Your task to perform on an android device: Look up the best gaming headphones on Best Buy Image 0: 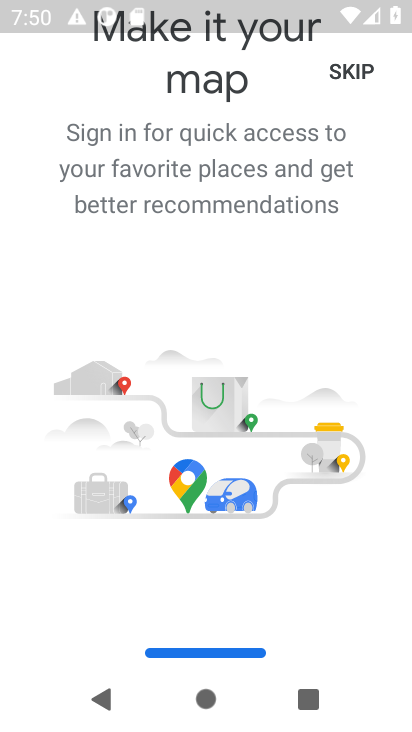
Step 0: press home button
Your task to perform on an android device: Look up the best gaming headphones on Best Buy Image 1: 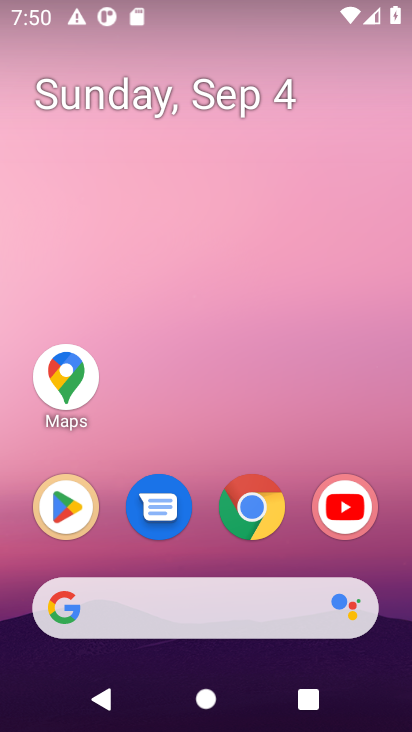
Step 1: click (254, 513)
Your task to perform on an android device: Look up the best gaming headphones on Best Buy Image 2: 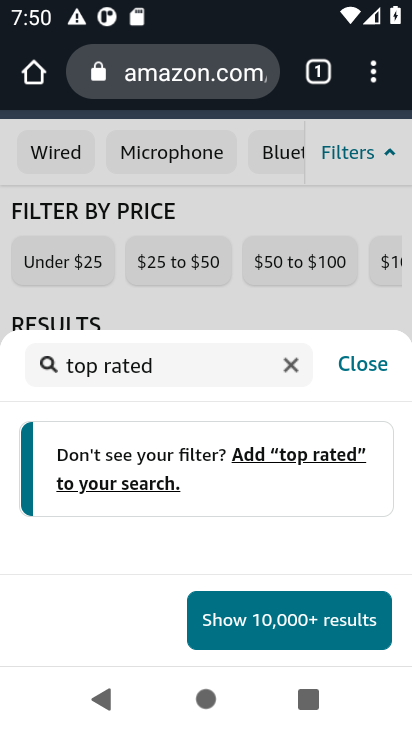
Step 2: click (26, 72)
Your task to perform on an android device: Look up the best gaming headphones on Best Buy Image 3: 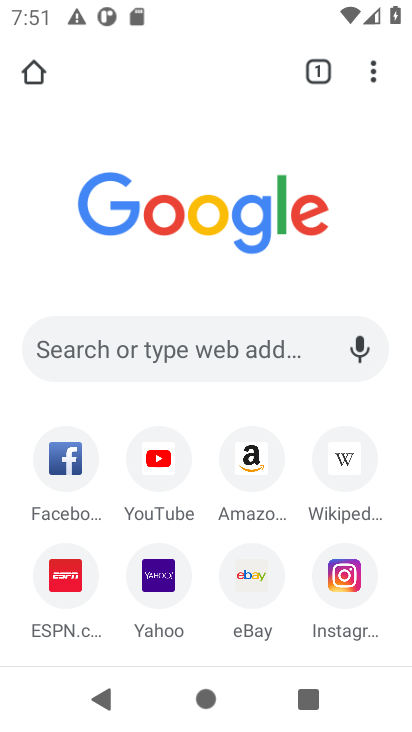
Step 3: click (161, 345)
Your task to perform on an android device: Look up the best gaming headphones on Best Buy Image 4: 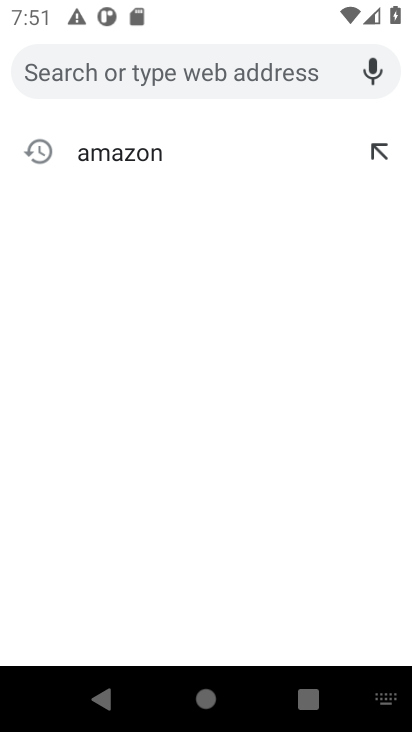
Step 4: type "Best buy"
Your task to perform on an android device: Look up the best gaming headphones on Best Buy Image 5: 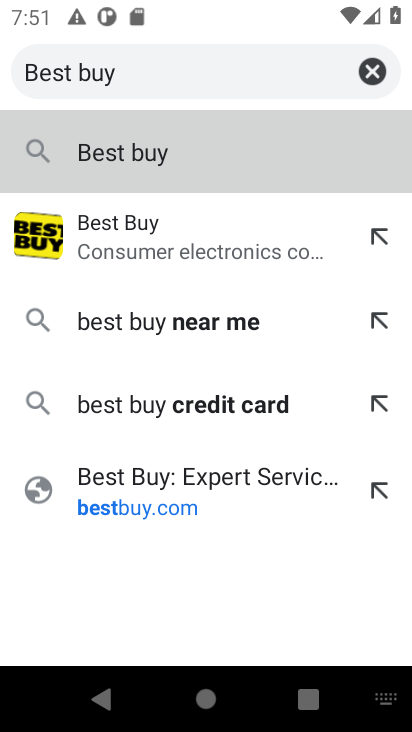
Step 5: click (121, 234)
Your task to perform on an android device: Look up the best gaming headphones on Best Buy Image 6: 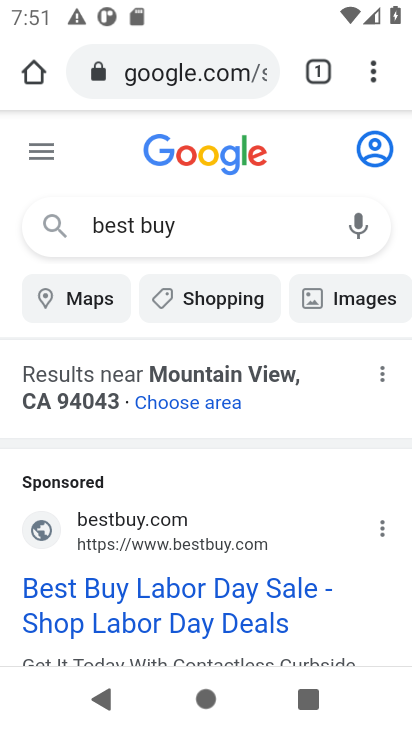
Step 6: drag from (190, 533) to (192, 246)
Your task to perform on an android device: Look up the best gaming headphones on Best Buy Image 7: 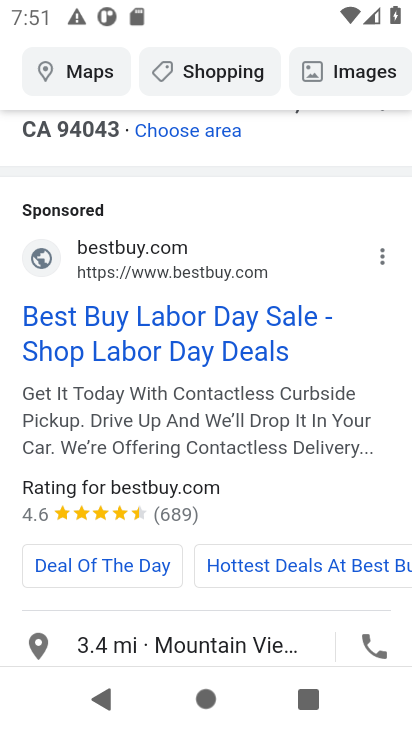
Step 7: click (103, 330)
Your task to perform on an android device: Look up the best gaming headphones on Best Buy Image 8: 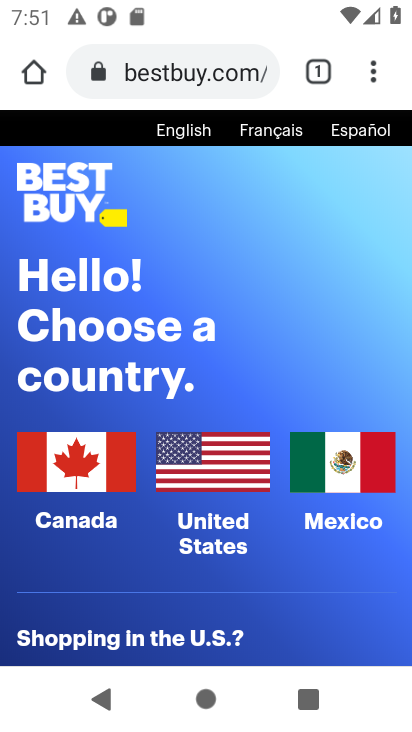
Step 8: drag from (272, 544) to (259, 271)
Your task to perform on an android device: Look up the best gaming headphones on Best Buy Image 9: 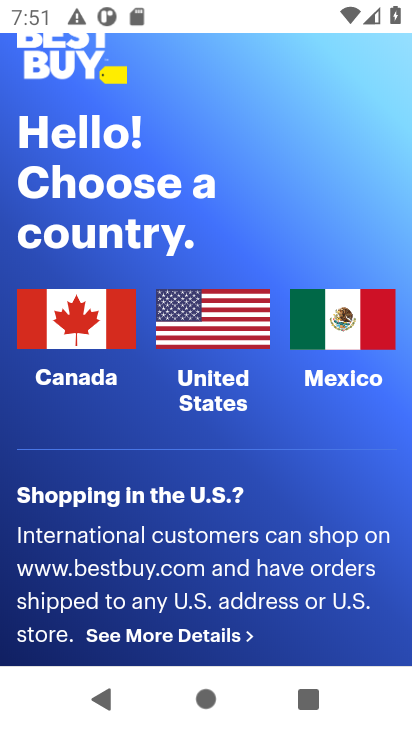
Step 9: click (215, 334)
Your task to perform on an android device: Look up the best gaming headphones on Best Buy Image 10: 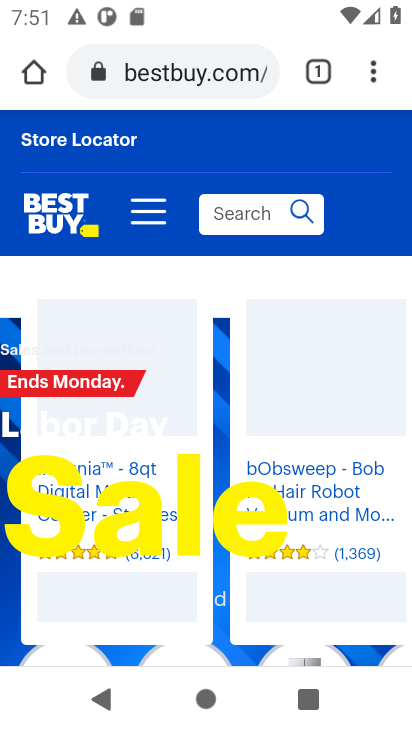
Step 10: click (250, 212)
Your task to perform on an android device: Look up the best gaming headphones on Best Buy Image 11: 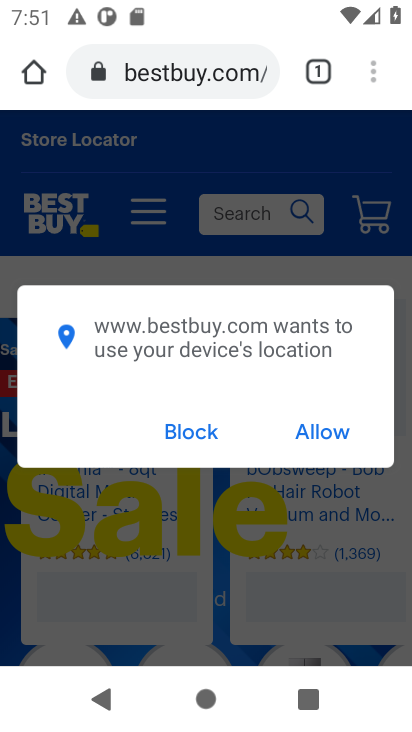
Step 11: click (217, 215)
Your task to perform on an android device: Look up the best gaming headphones on Best Buy Image 12: 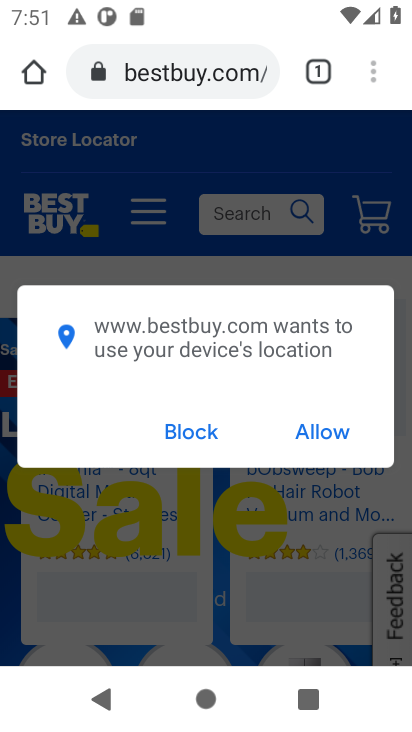
Step 12: click (332, 429)
Your task to perform on an android device: Look up the best gaming headphones on Best Buy Image 13: 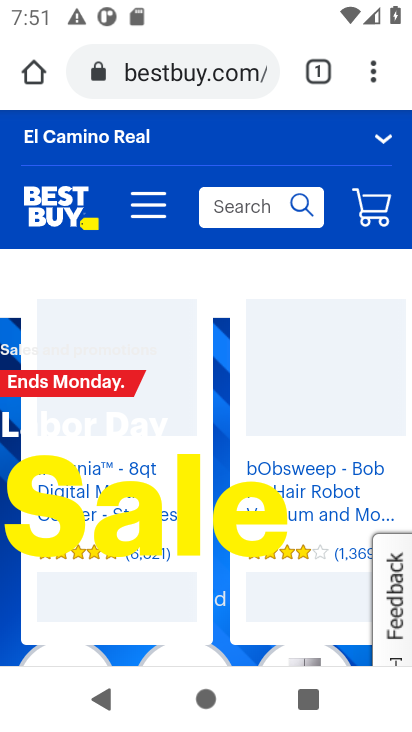
Step 13: click (232, 205)
Your task to perform on an android device: Look up the best gaming headphones on Best Buy Image 14: 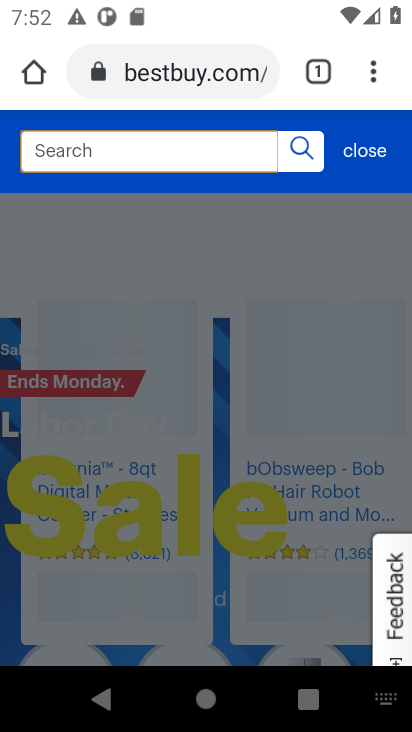
Step 14: type "gaming headphones"
Your task to perform on an android device: Look up the best gaming headphones on Best Buy Image 15: 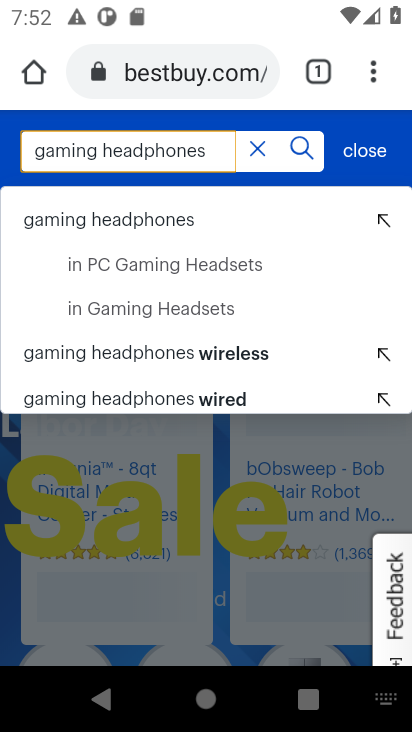
Step 15: click (87, 219)
Your task to perform on an android device: Look up the best gaming headphones on Best Buy Image 16: 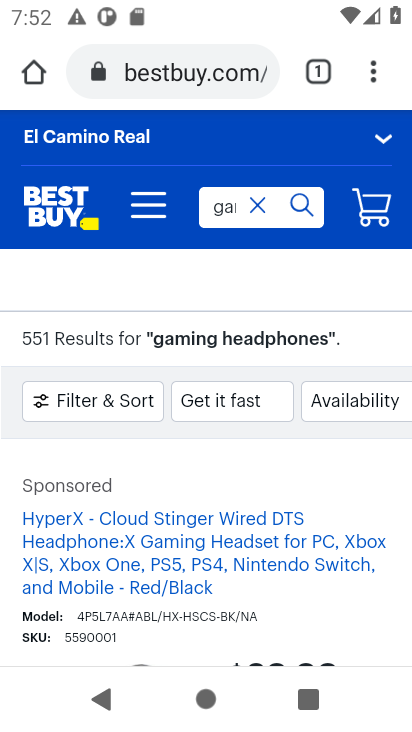
Step 16: drag from (170, 475) to (177, 300)
Your task to perform on an android device: Look up the best gaming headphones on Best Buy Image 17: 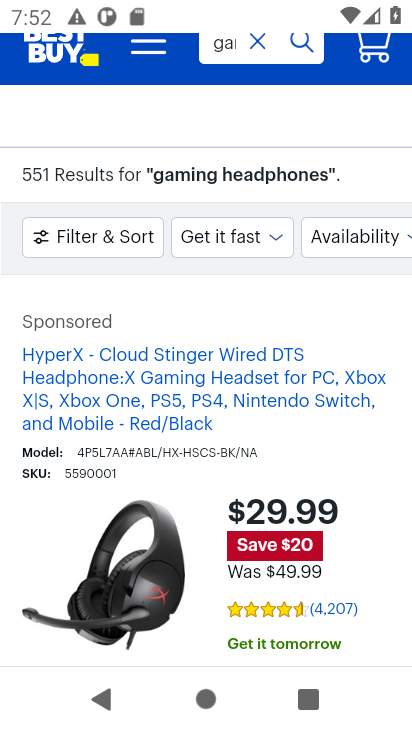
Step 17: click (45, 232)
Your task to perform on an android device: Look up the best gaming headphones on Best Buy Image 18: 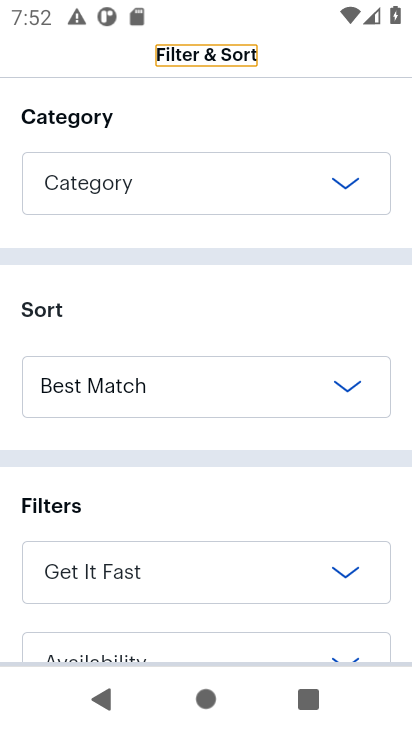
Step 18: press back button
Your task to perform on an android device: Look up the best gaming headphones on Best Buy Image 19: 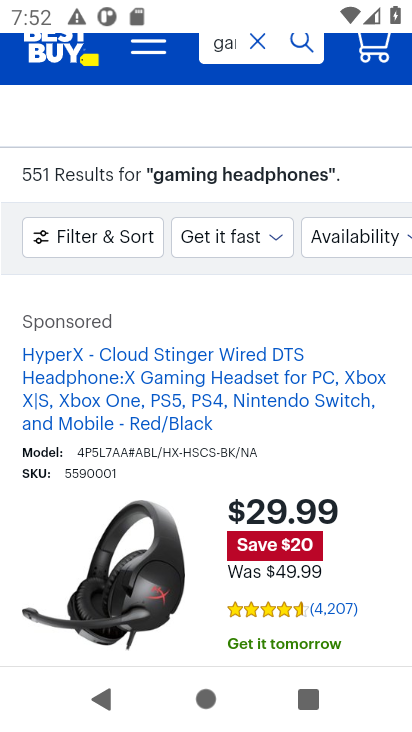
Step 19: drag from (313, 486) to (306, 187)
Your task to perform on an android device: Look up the best gaming headphones on Best Buy Image 20: 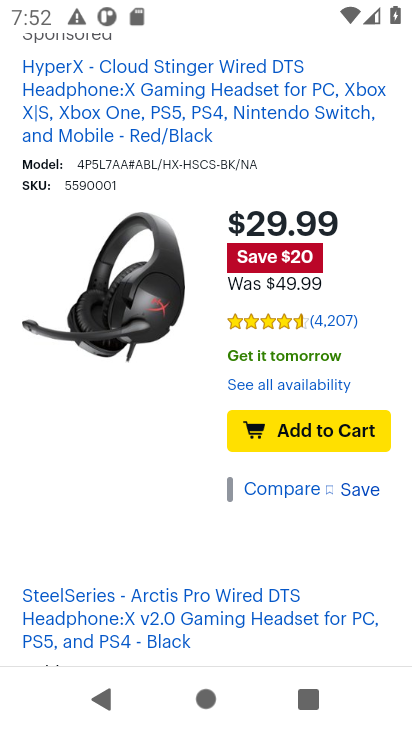
Step 20: drag from (263, 414) to (255, 199)
Your task to perform on an android device: Look up the best gaming headphones on Best Buy Image 21: 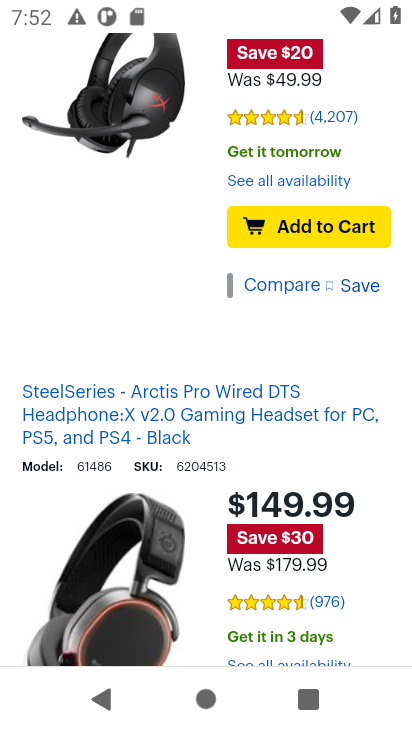
Step 21: drag from (248, 349) to (223, 72)
Your task to perform on an android device: Look up the best gaming headphones on Best Buy Image 22: 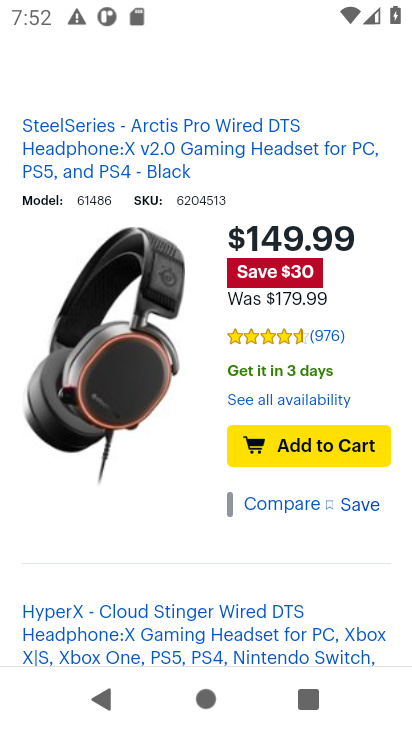
Step 22: drag from (242, 309) to (227, 105)
Your task to perform on an android device: Look up the best gaming headphones on Best Buy Image 23: 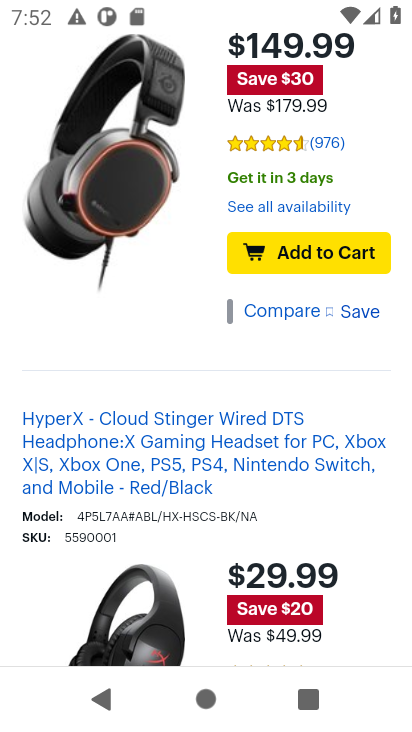
Step 23: drag from (219, 486) to (224, 85)
Your task to perform on an android device: Look up the best gaming headphones on Best Buy Image 24: 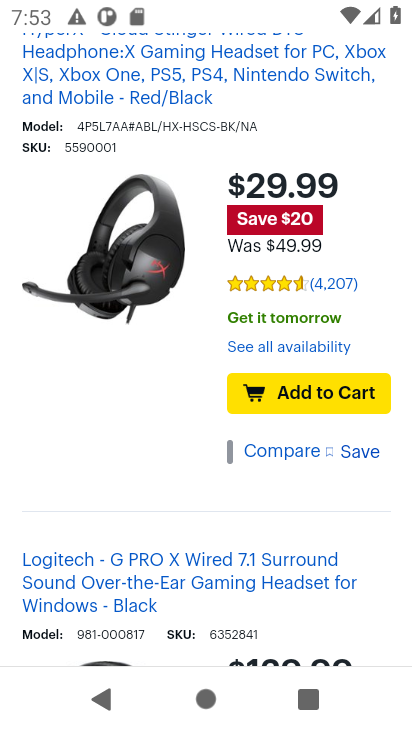
Step 24: click (227, 204)
Your task to perform on an android device: Look up the best gaming headphones on Best Buy Image 25: 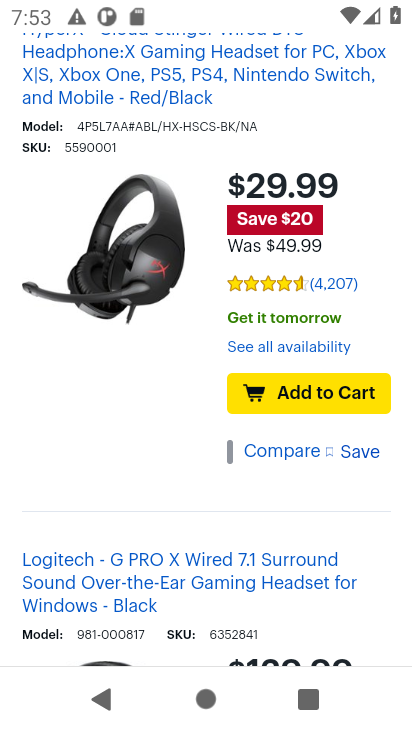
Step 25: task complete